Your task to perform on an android device: change the upload size in google photos Image 0: 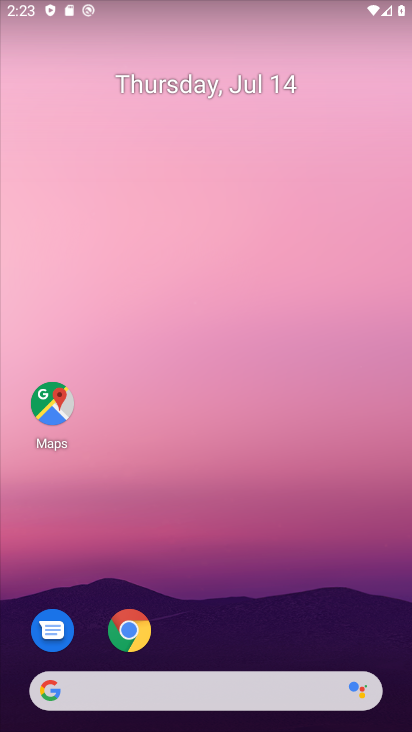
Step 0: drag from (229, 635) to (316, 27)
Your task to perform on an android device: change the upload size in google photos Image 1: 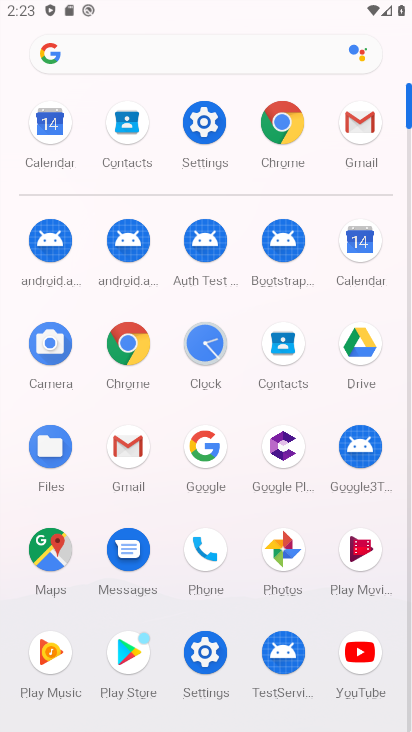
Step 1: click (282, 540)
Your task to perform on an android device: change the upload size in google photos Image 2: 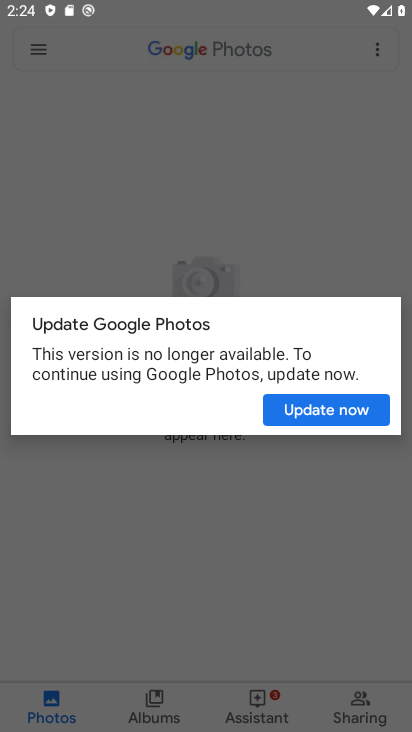
Step 2: click (345, 411)
Your task to perform on an android device: change the upload size in google photos Image 3: 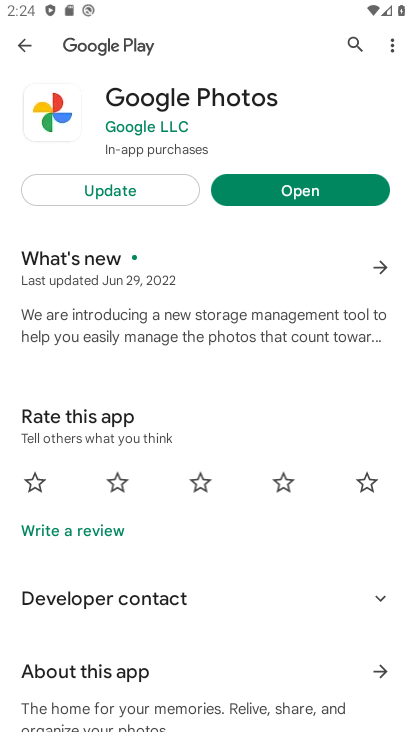
Step 3: click (133, 187)
Your task to perform on an android device: change the upload size in google photos Image 4: 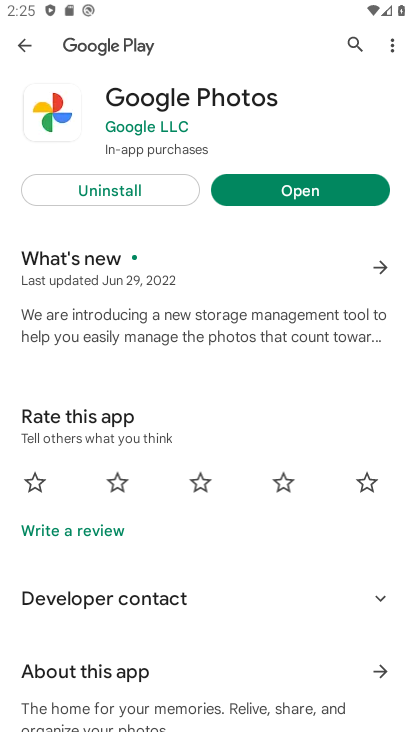
Step 4: click (300, 187)
Your task to perform on an android device: change the upload size in google photos Image 5: 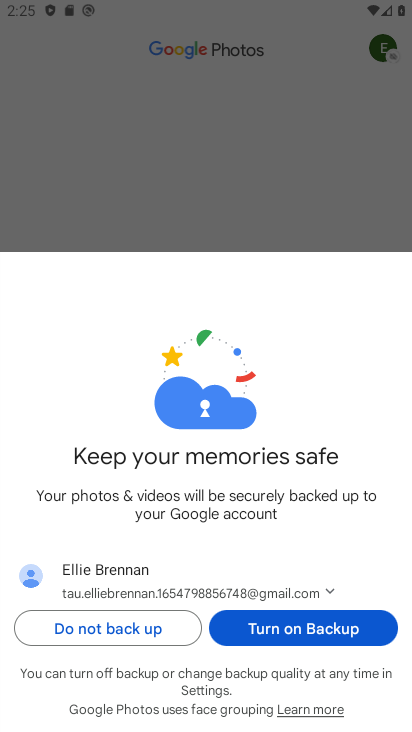
Step 5: click (297, 627)
Your task to perform on an android device: change the upload size in google photos Image 6: 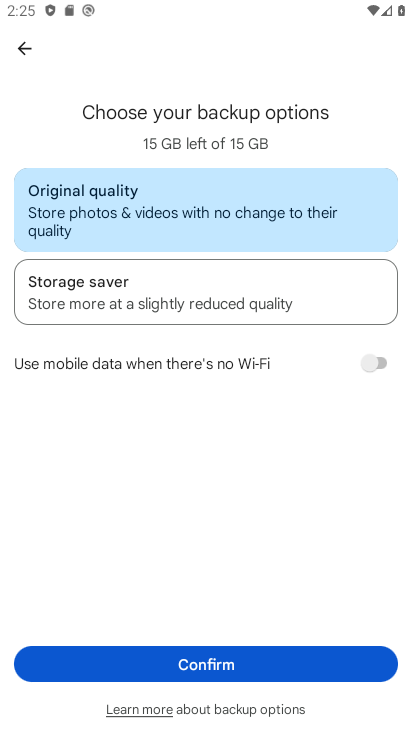
Step 6: click (234, 674)
Your task to perform on an android device: change the upload size in google photos Image 7: 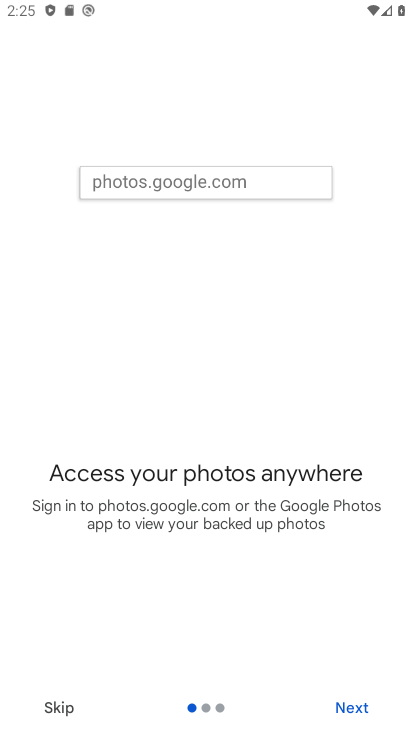
Step 7: click (63, 704)
Your task to perform on an android device: change the upload size in google photos Image 8: 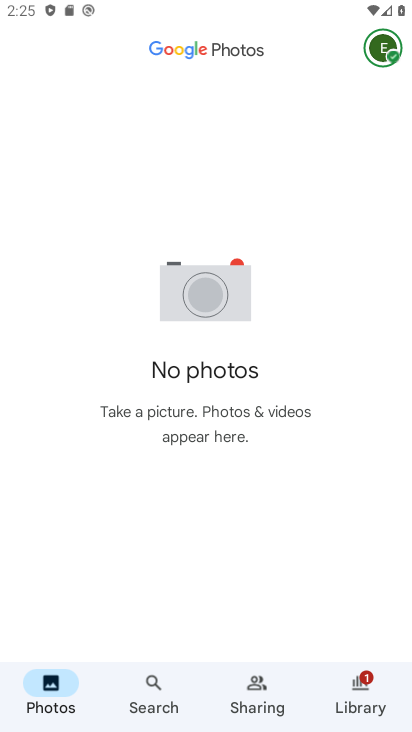
Step 8: click (380, 48)
Your task to perform on an android device: change the upload size in google photos Image 9: 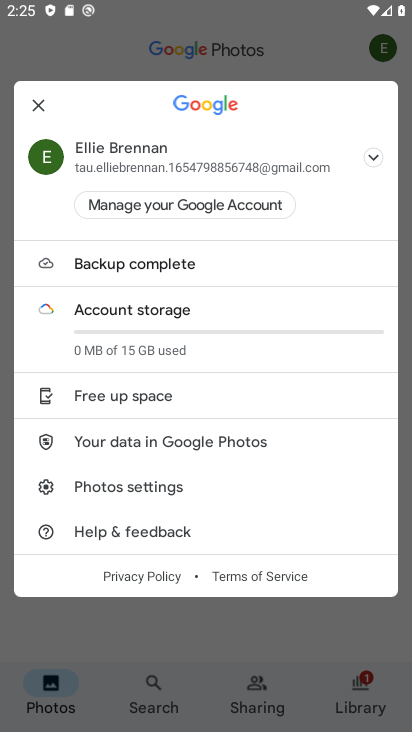
Step 9: click (134, 479)
Your task to perform on an android device: change the upload size in google photos Image 10: 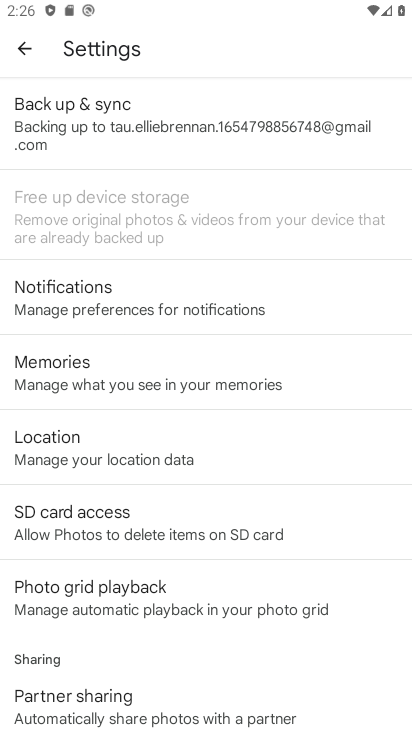
Step 10: click (85, 118)
Your task to perform on an android device: change the upload size in google photos Image 11: 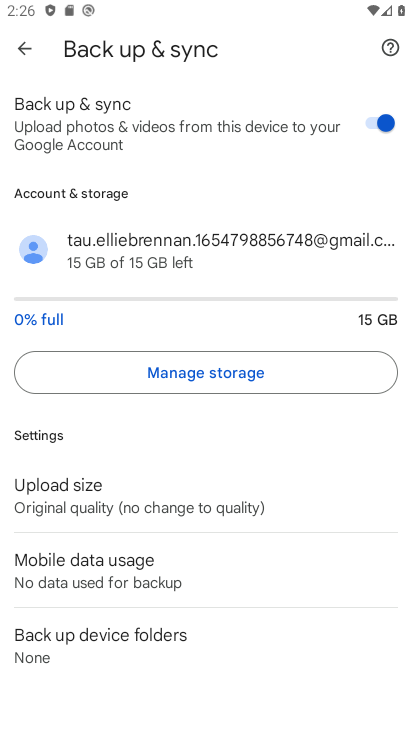
Step 11: click (128, 496)
Your task to perform on an android device: change the upload size in google photos Image 12: 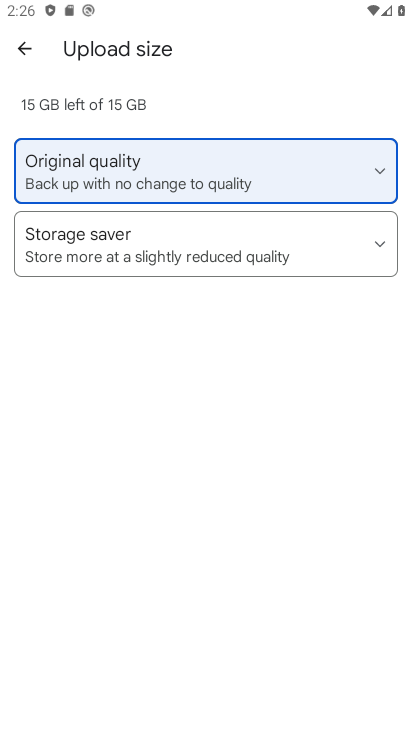
Step 12: task complete